Your task to perform on an android device: toggle notification dots Image 0: 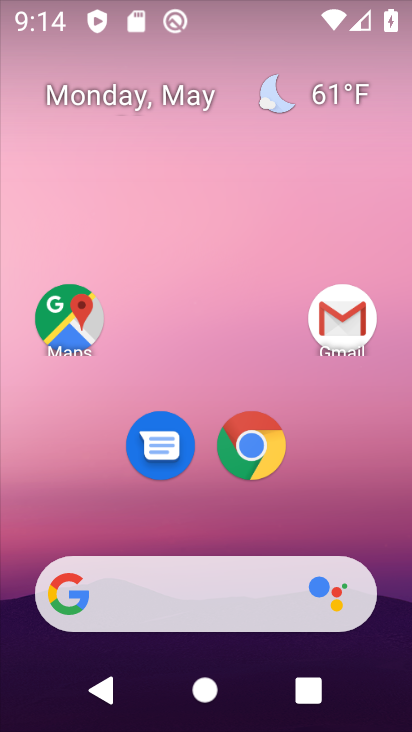
Step 0: drag from (372, 535) to (367, 165)
Your task to perform on an android device: toggle notification dots Image 1: 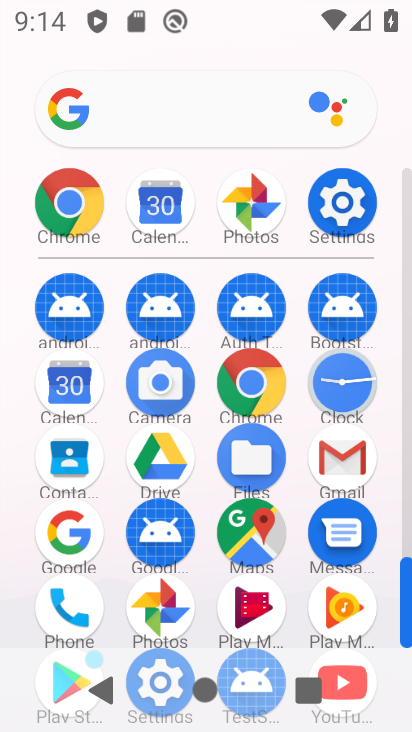
Step 1: click (347, 215)
Your task to perform on an android device: toggle notification dots Image 2: 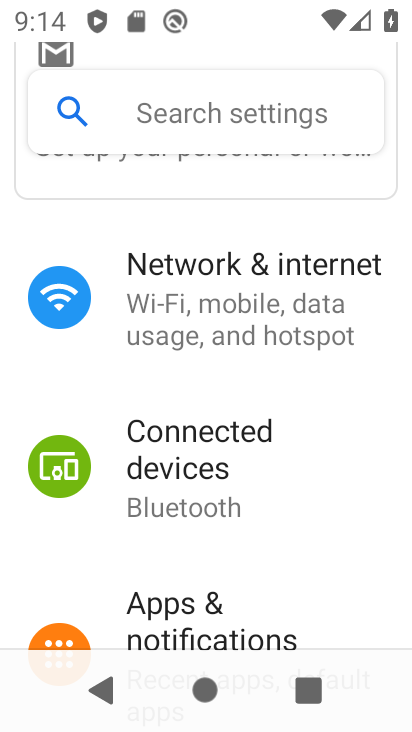
Step 2: drag from (328, 416) to (338, 329)
Your task to perform on an android device: toggle notification dots Image 3: 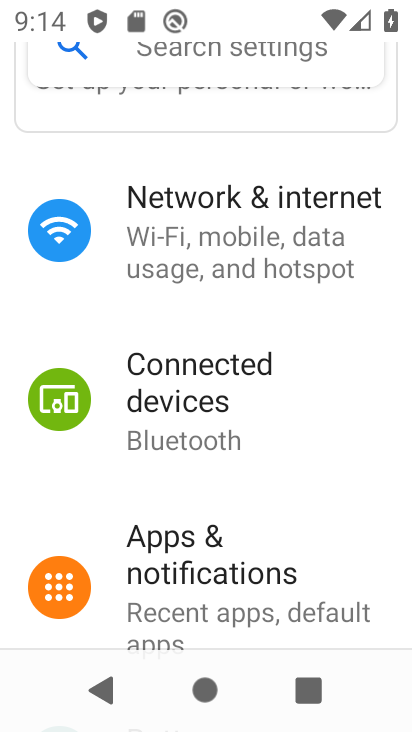
Step 3: drag from (339, 409) to (344, 333)
Your task to perform on an android device: toggle notification dots Image 4: 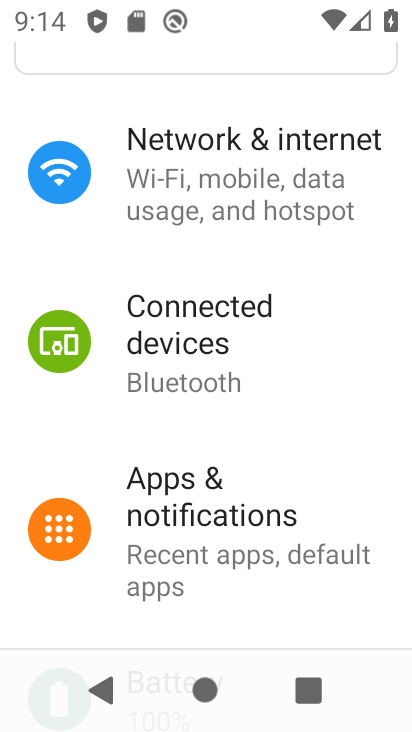
Step 4: drag from (346, 394) to (346, 300)
Your task to perform on an android device: toggle notification dots Image 5: 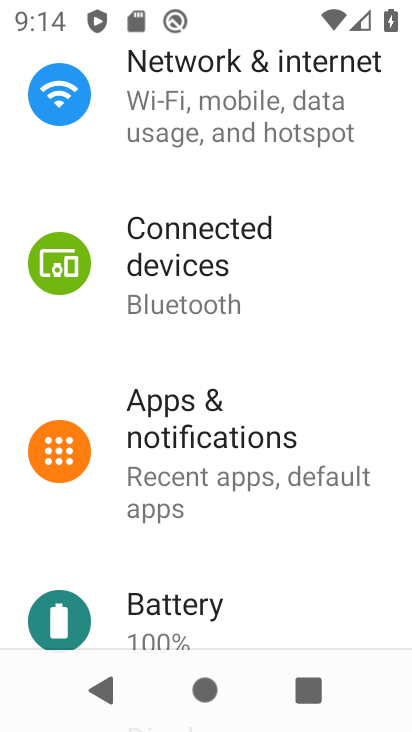
Step 5: drag from (348, 391) to (349, 283)
Your task to perform on an android device: toggle notification dots Image 6: 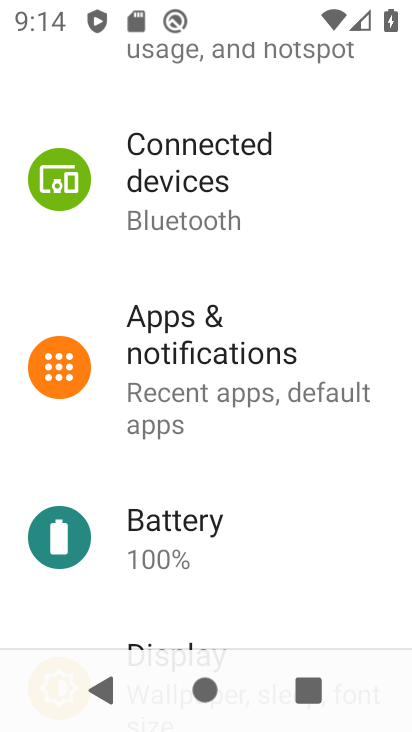
Step 6: drag from (351, 398) to (350, 290)
Your task to perform on an android device: toggle notification dots Image 7: 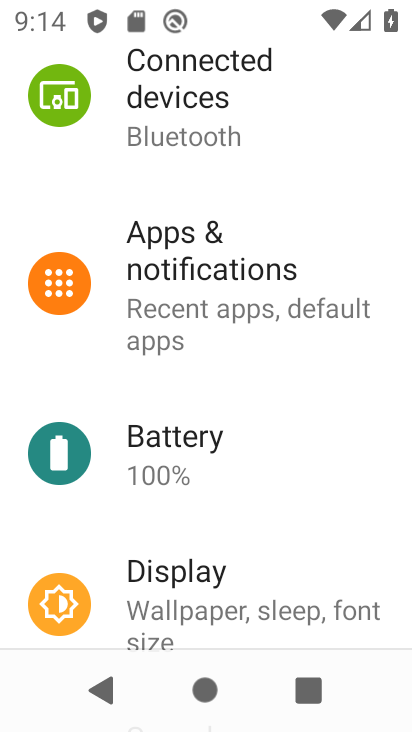
Step 7: drag from (319, 420) to (320, 246)
Your task to perform on an android device: toggle notification dots Image 8: 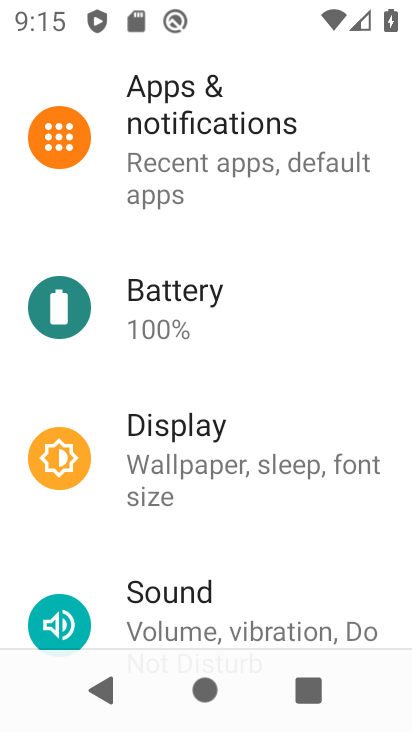
Step 8: click (275, 152)
Your task to perform on an android device: toggle notification dots Image 9: 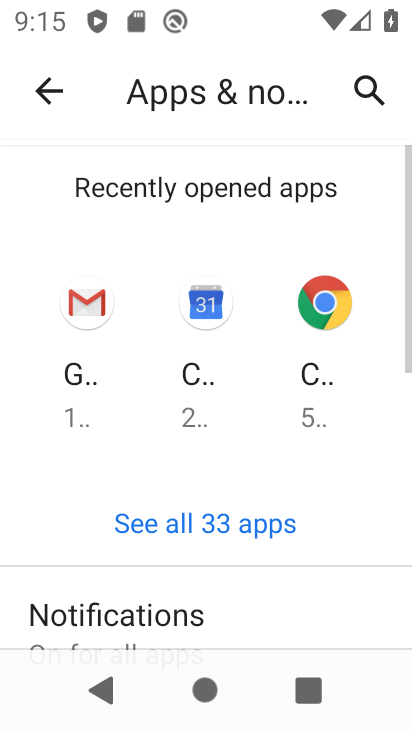
Step 9: drag from (366, 465) to (381, 358)
Your task to perform on an android device: toggle notification dots Image 10: 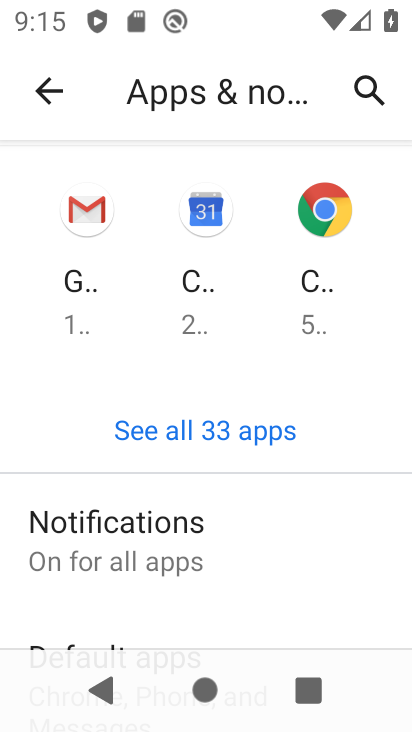
Step 10: drag from (378, 502) to (382, 372)
Your task to perform on an android device: toggle notification dots Image 11: 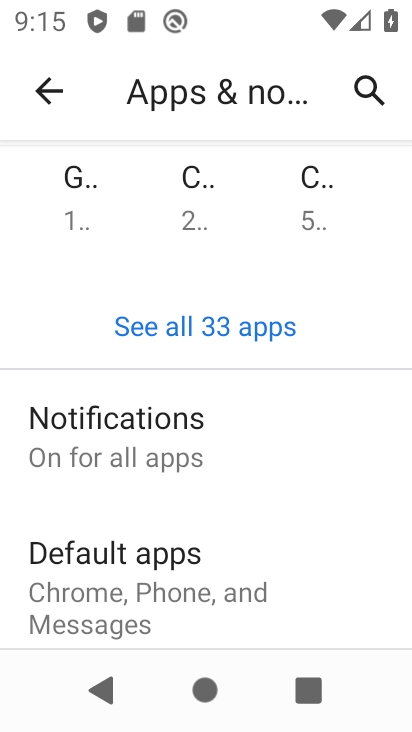
Step 11: drag from (361, 490) to (358, 380)
Your task to perform on an android device: toggle notification dots Image 12: 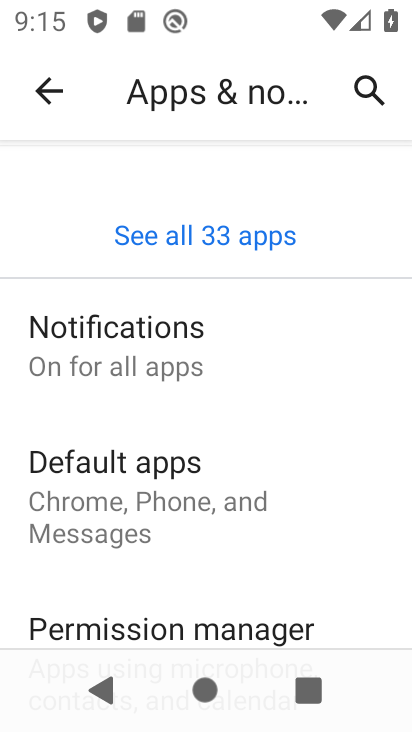
Step 12: drag from (356, 484) to (356, 390)
Your task to perform on an android device: toggle notification dots Image 13: 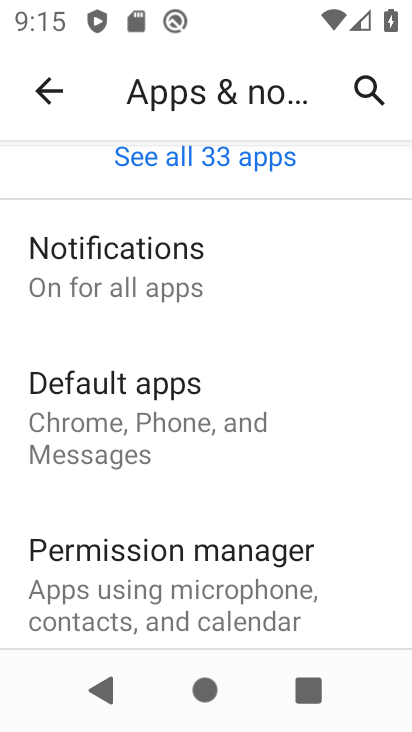
Step 13: drag from (358, 522) to (366, 431)
Your task to perform on an android device: toggle notification dots Image 14: 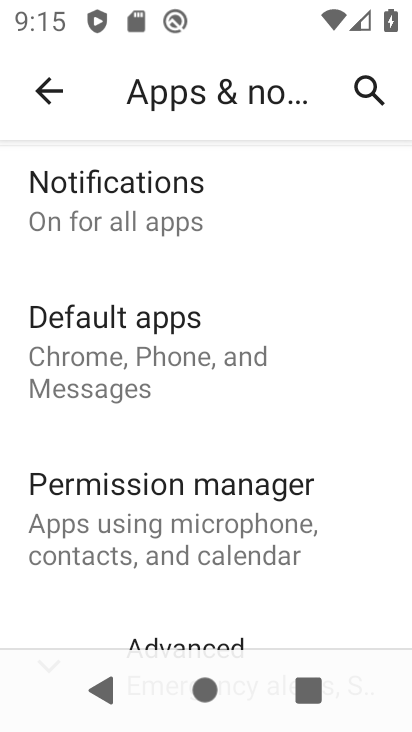
Step 14: click (207, 214)
Your task to perform on an android device: toggle notification dots Image 15: 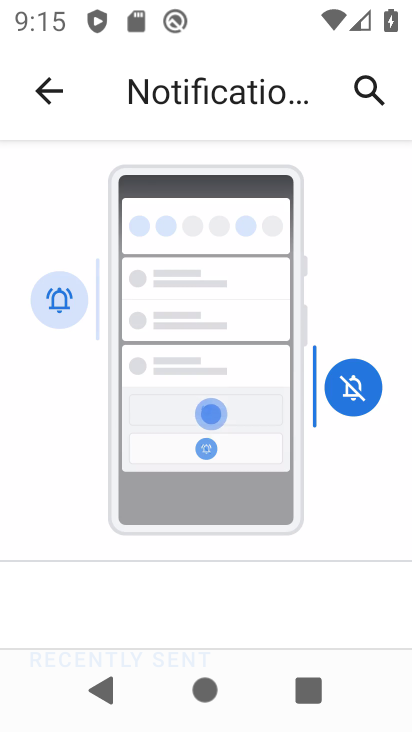
Step 15: drag from (346, 537) to (348, 343)
Your task to perform on an android device: toggle notification dots Image 16: 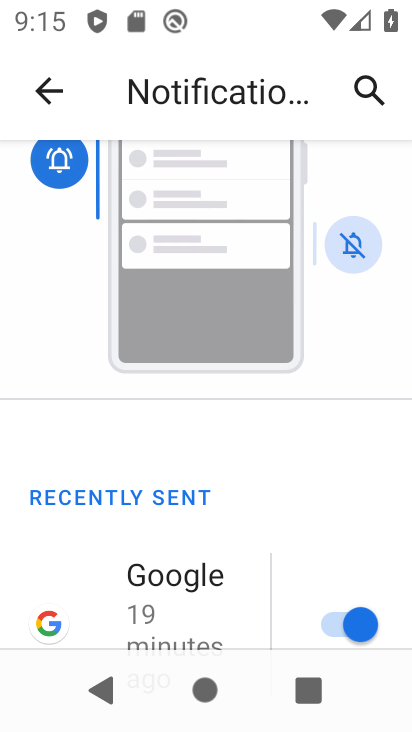
Step 16: drag from (353, 489) to (373, 344)
Your task to perform on an android device: toggle notification dots Image 17: 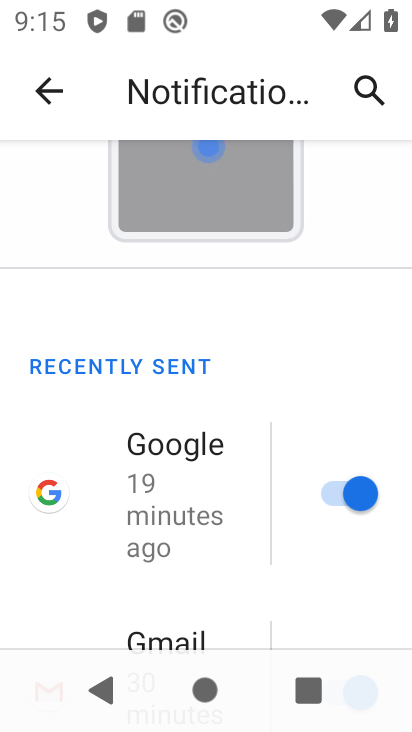
Step 17: drag from (297, 584) to (313, 316)
Your task to perform on an android device: toggle notification dots Image 18: 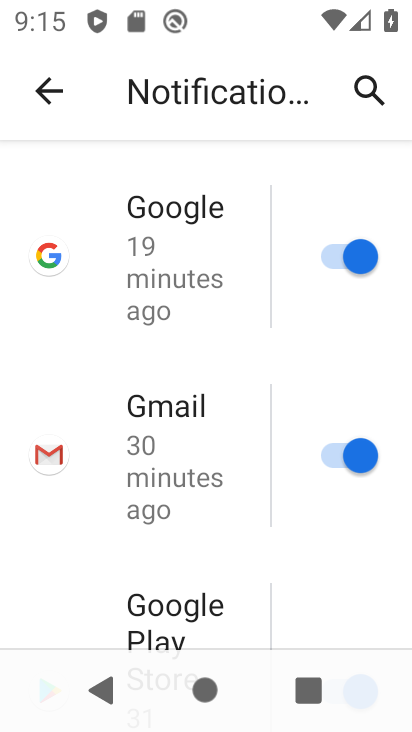
Step 18: drag from (298, 571) to (288, 352)
Your task to perform on an android device: toggle notification dots Image 19: 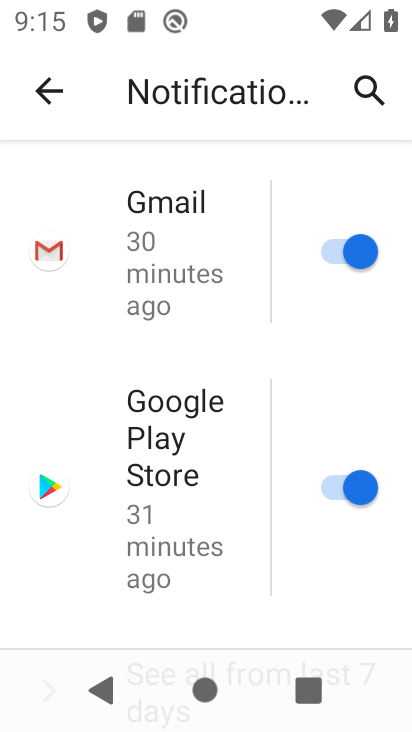
Step 19: drag from (278, 586) to (291, 264)
Your task to perform on an android device: toggle notification dots Image 20: 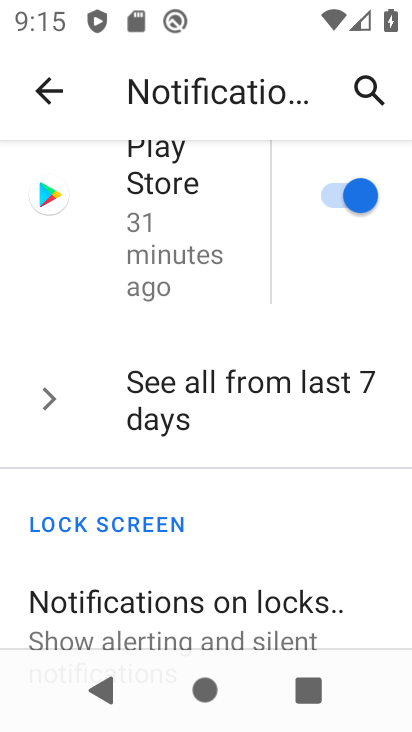
Step 20: drag from (268, 370) to (280, 209)
Your task to perform on an android device: toggle notification dots Image 21: 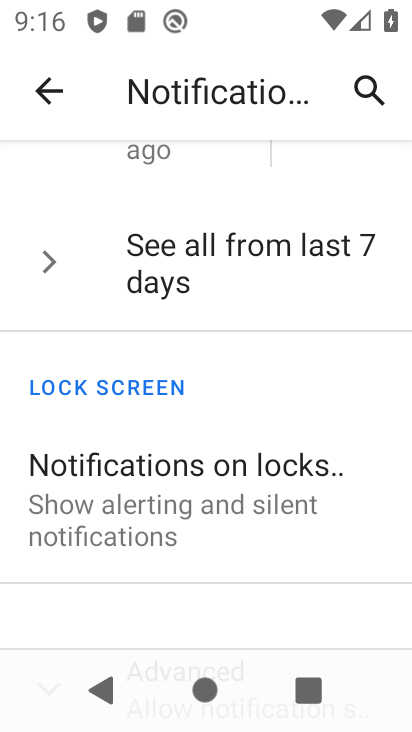
Step 21: drag from (299, 537) to (294, 315)
Your task to perform on an android device: toggle notification dots Image 22: 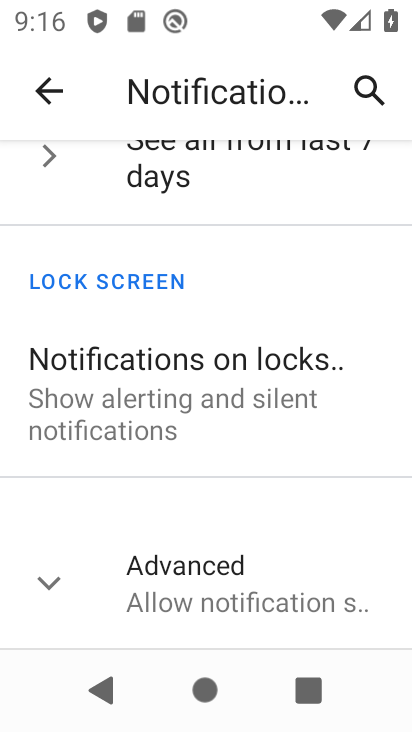
Step 22: click (287, 598)
Your task to perform on an android device: toggle notification dots Image 23: 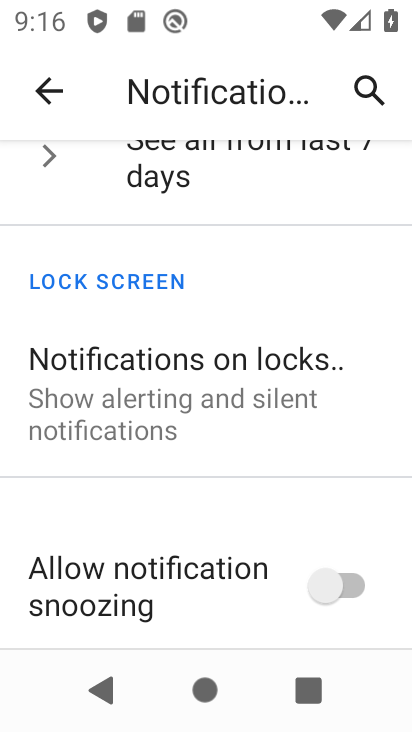
Step 23: drag from (272, 603) to (273, 386)
Your task to perform on an android device: toggle notification dots Image 24: 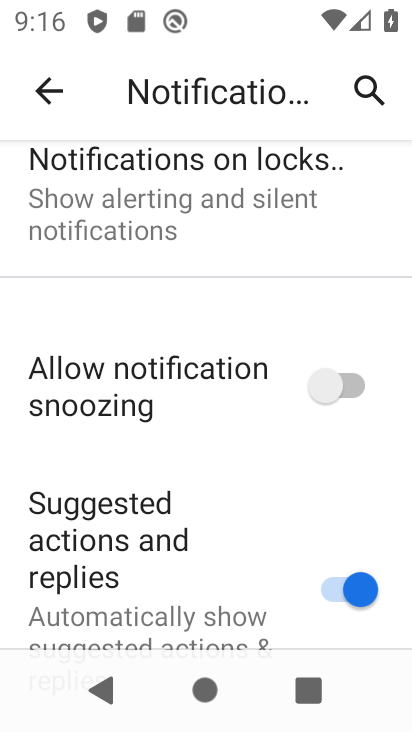
Step 24: drag from (274, 596) to (282, 412)
Your task to perform on an android device: toggle notification dots Image 25: 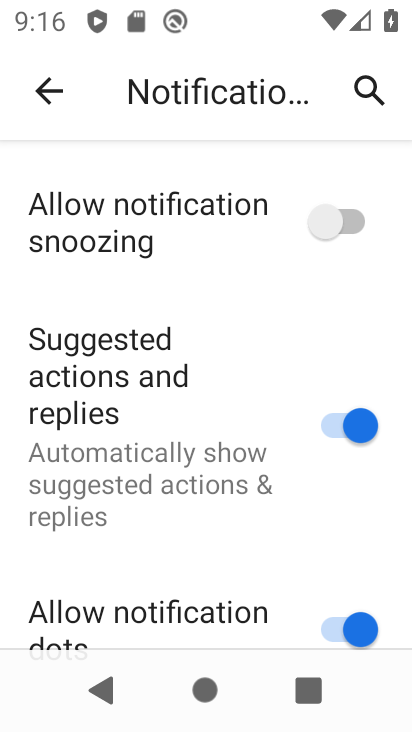
Step 25: drag from (293, 602) to (295, 446)
Your task to perform on an android device: toggle notification dots Image 26: 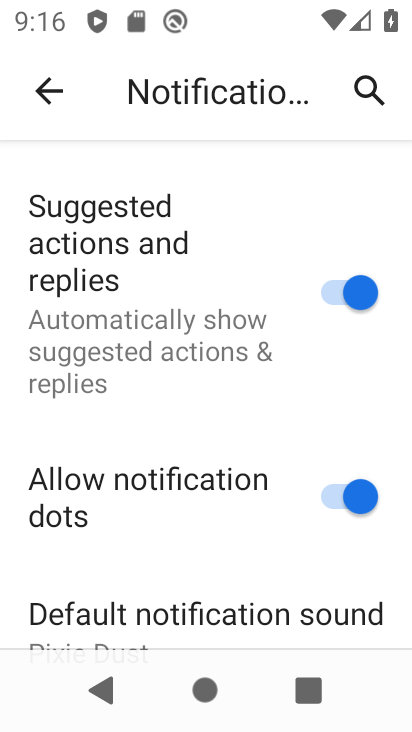
Step 26: click (359, 495)
Your task to perform on an android device: toggle notification dots Image 27: 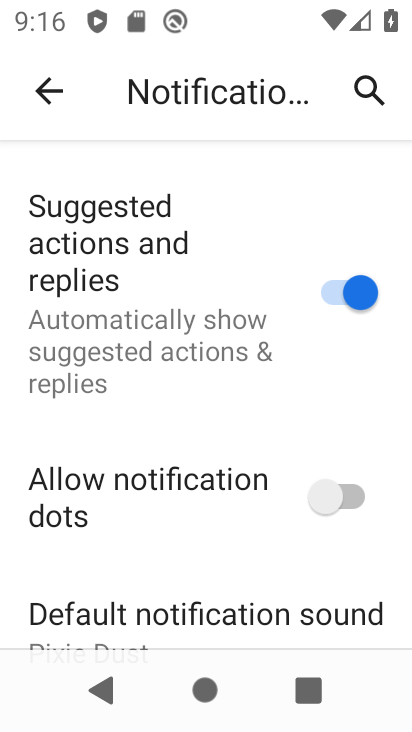
Step 27: task complete